Your task to perform on an android device: turn on bluetooth scan Image 0: 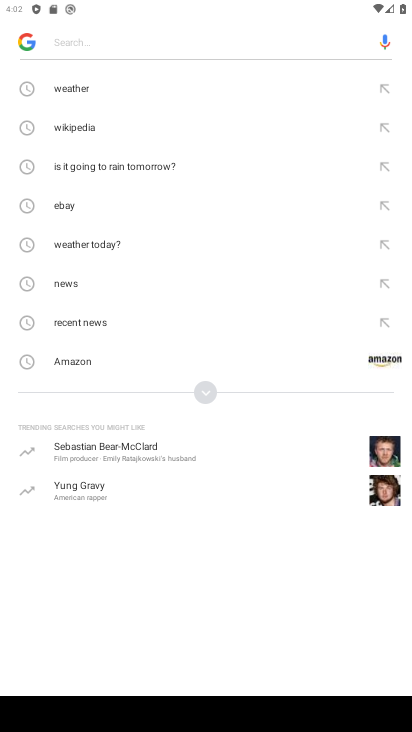
Step 0: press home button
Your task to perform on an android device: turn on bluetooth scan Image 1: 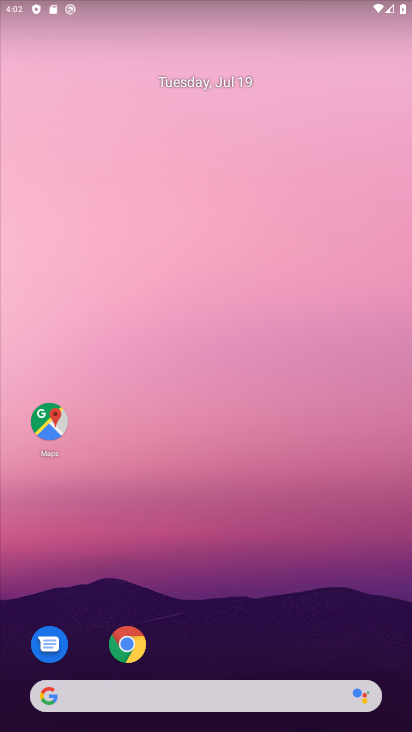
Step 1: drag from (191, 224) to (166, 96)
Your task to perform on an android device: turn on bluetooth scan Image 2: 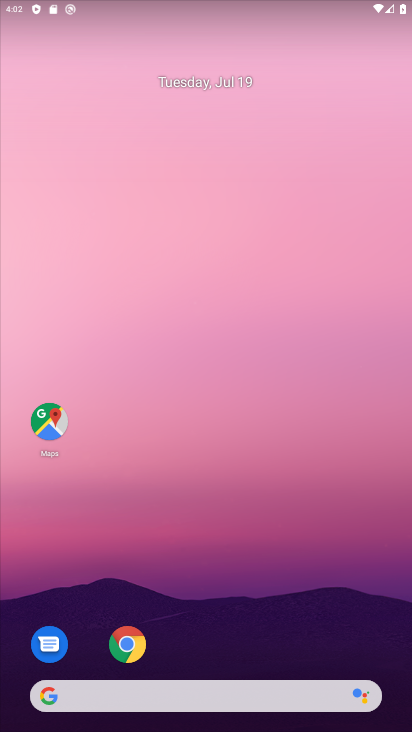
Step 2: drag from (291, 503) to (216, 79)
Your task to perform on an android device: turn on bluetooth scan Image 3: 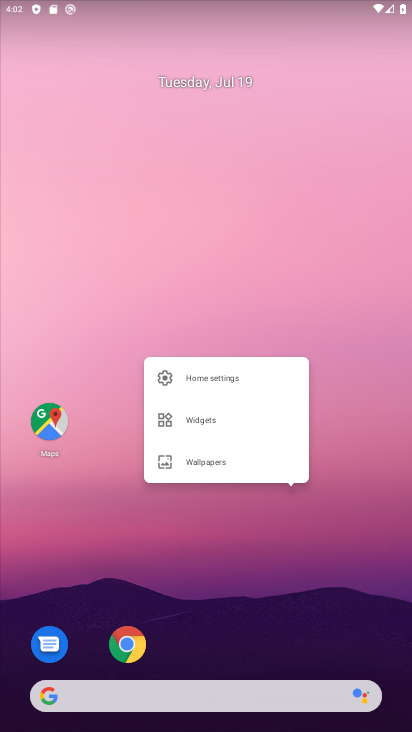
Step 3: click (326, 525)
Your task to perform on an android device: turn on bluetooth scan Image 4: 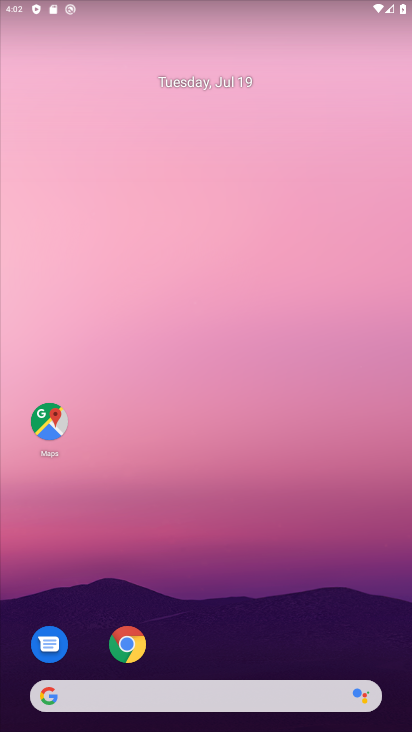
Step 4: drag from (234, 533) to (151, 107)
Your task to perform on an android device: turn on bluetooth scan Image 5: 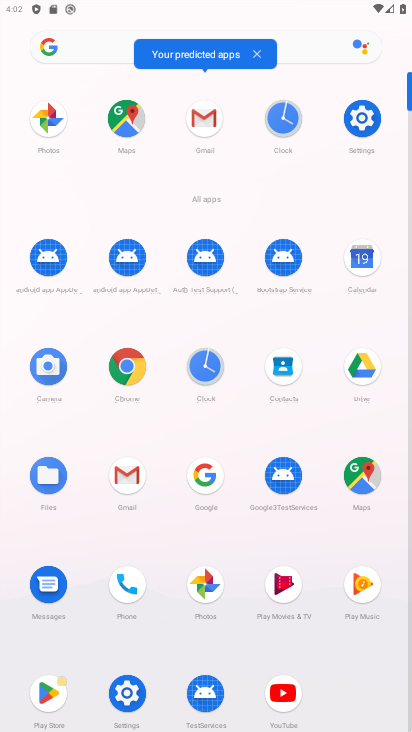
Step 5: click (354, 131)
Your task to perform on an android device: turn on bluetooth scan Image 6: 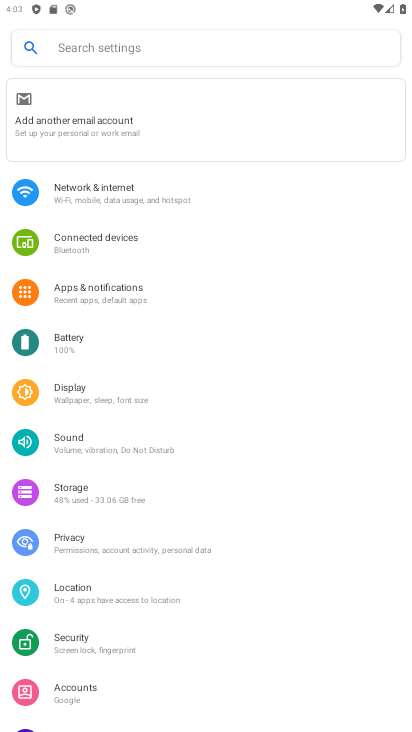
Step 6: click (124, 203)
Your task to perform on an android device: turn on bluetooth scan Image 7: 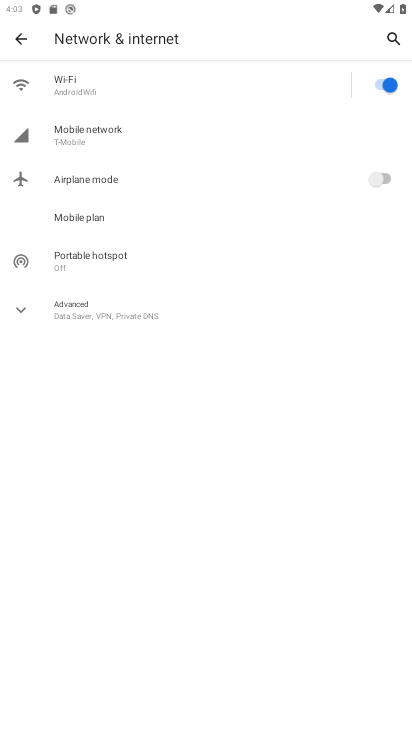
Step 7: click (25, 43)
Your task to perform on an android device: turn on bluetooth scan Image 8: 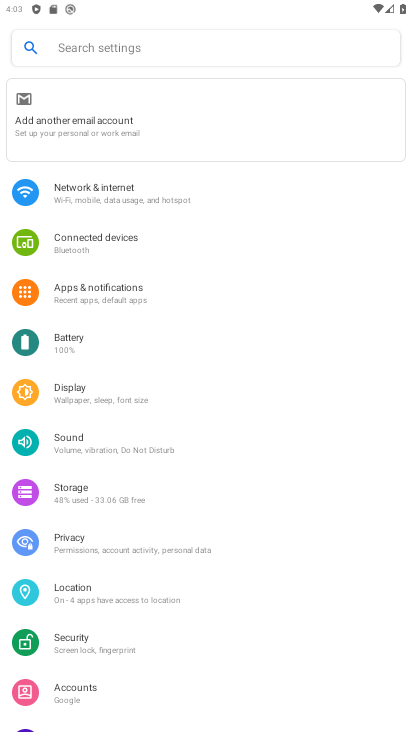
Step 8: click (92, 584)
Your task to perform on an android device: turn on bluetooth scan Image 9: 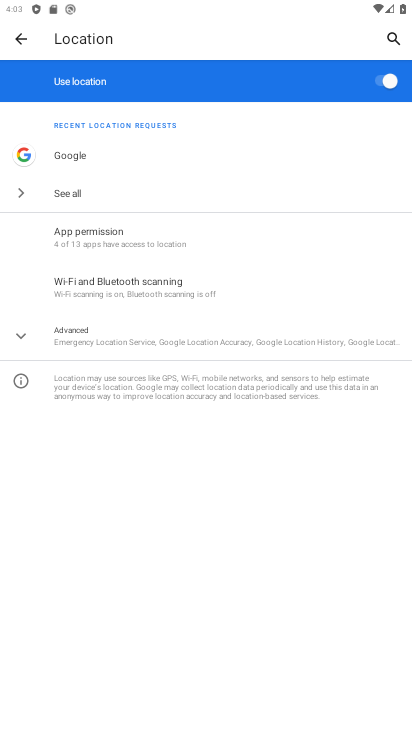
Step 9: click (100, 278)
Your task to perform on an android device: turn on bluetooth scan Image 10: 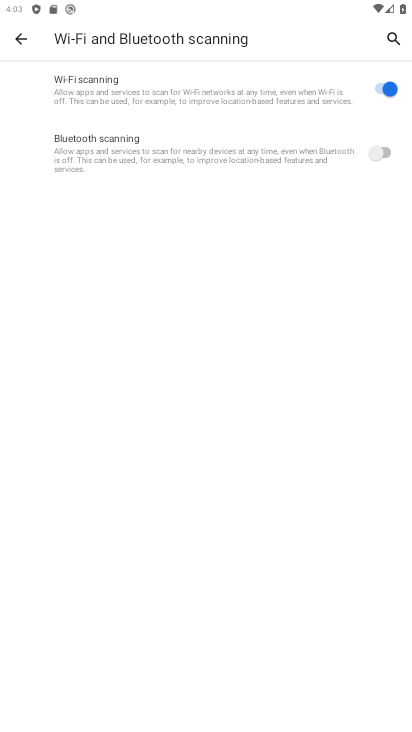
Step 10: click (359, 159)
Your task to perform on an android device: turn on bluetooth scan Image 11: 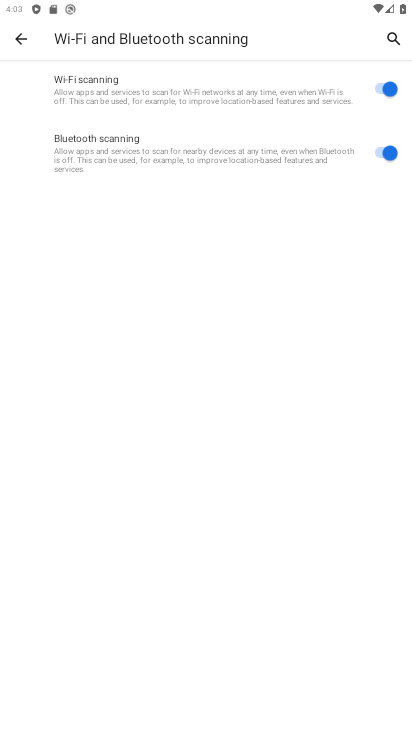
Step 11: task complete